Your task to perform on an android device: see tabs open on other devices in the chrome app Image 0: 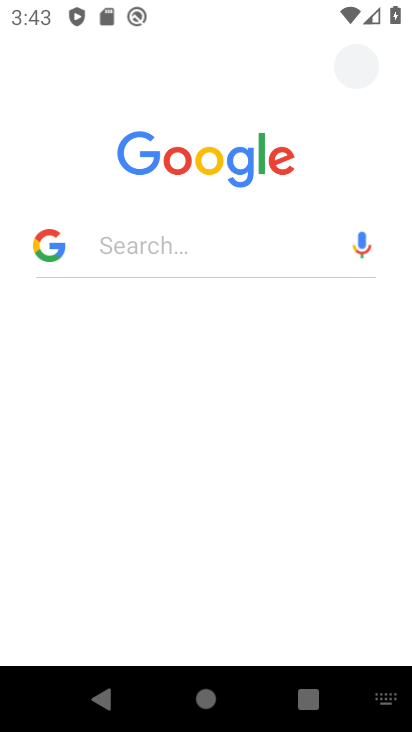
Step 0: press home button
Your task to perform on an android device: see tabs open on other devices in the chrome app Image 1: 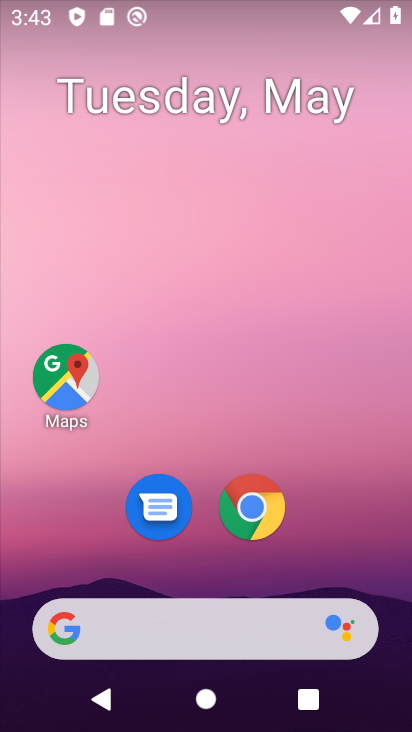
Step 1: click (258, 514)
Your task to perform on an android device: see tabs open on other devices in the chrome app Image 2: 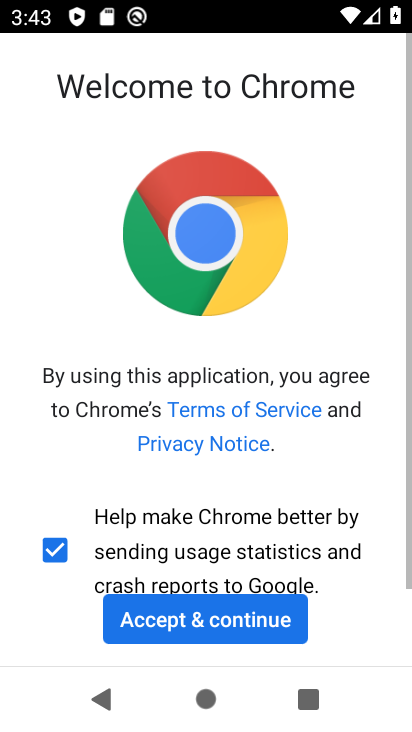
Step 2: click (262, 614)
Your task to perform on an android device: see tabs open on other devices in the chrome app Image 3: 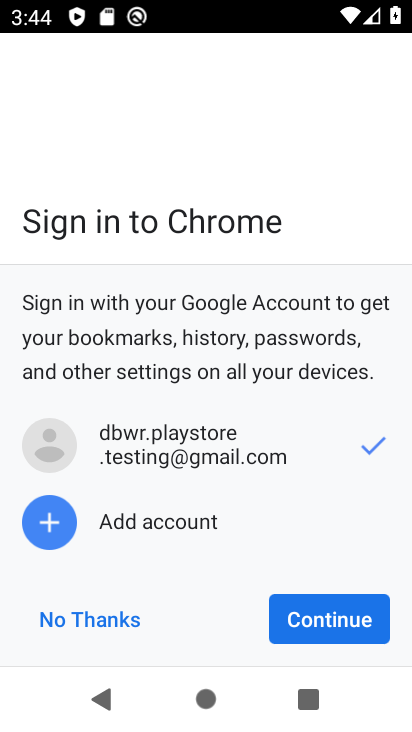
Step 3: click (331, 618)
Your task to perform on an android device: see tabs open on other devices in the chrome app Image 4: 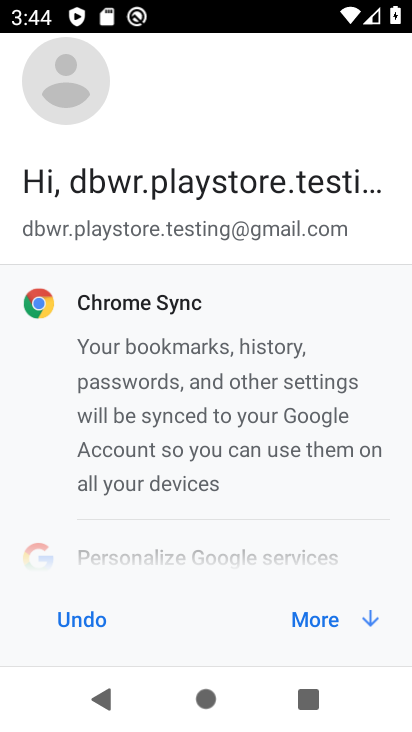
Step 4: click (327, 618)
Your task to perform on an android device: see tabs open on other devices in the chrome app Image 5: 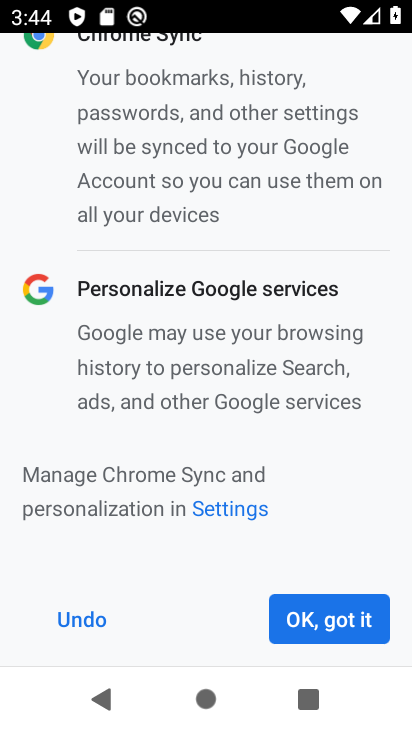
Step 5: click (327, 618)
Your task to perform on an android device: see tabs open on other devices in the chrome app Image 6: 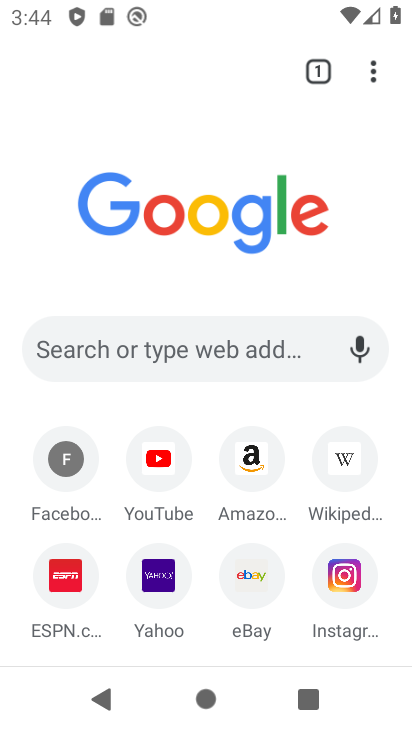
Step 6: click (326, 63)
Your task to perform on an android device: see tabs open on other devices in the chrome app Image 7: 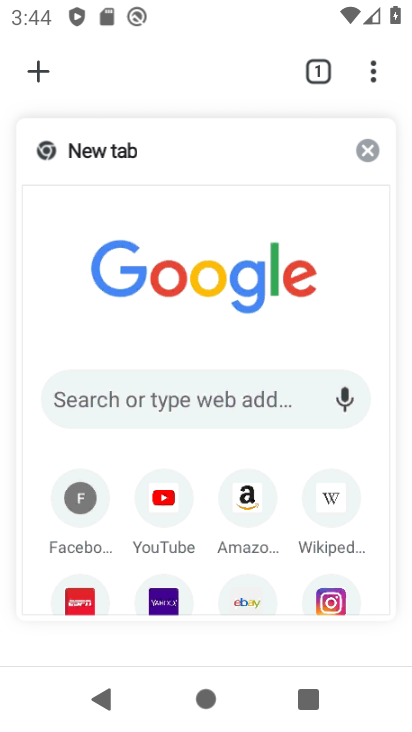
Step 7: task complete